Your task to perform on an android device: star an email in the gmail app Image 0: 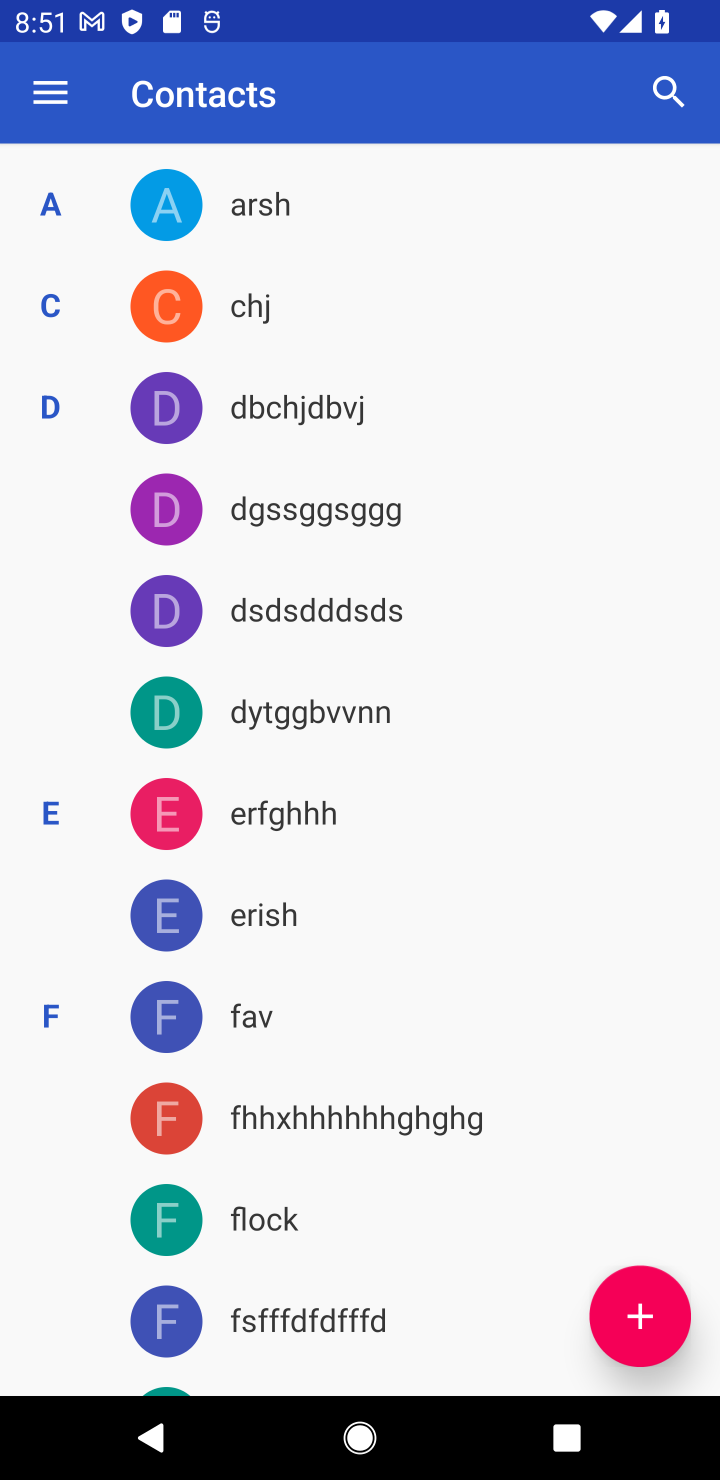
Step 0: press home button
Your task to perform on an android device: star an email in the gmail app Image 1: 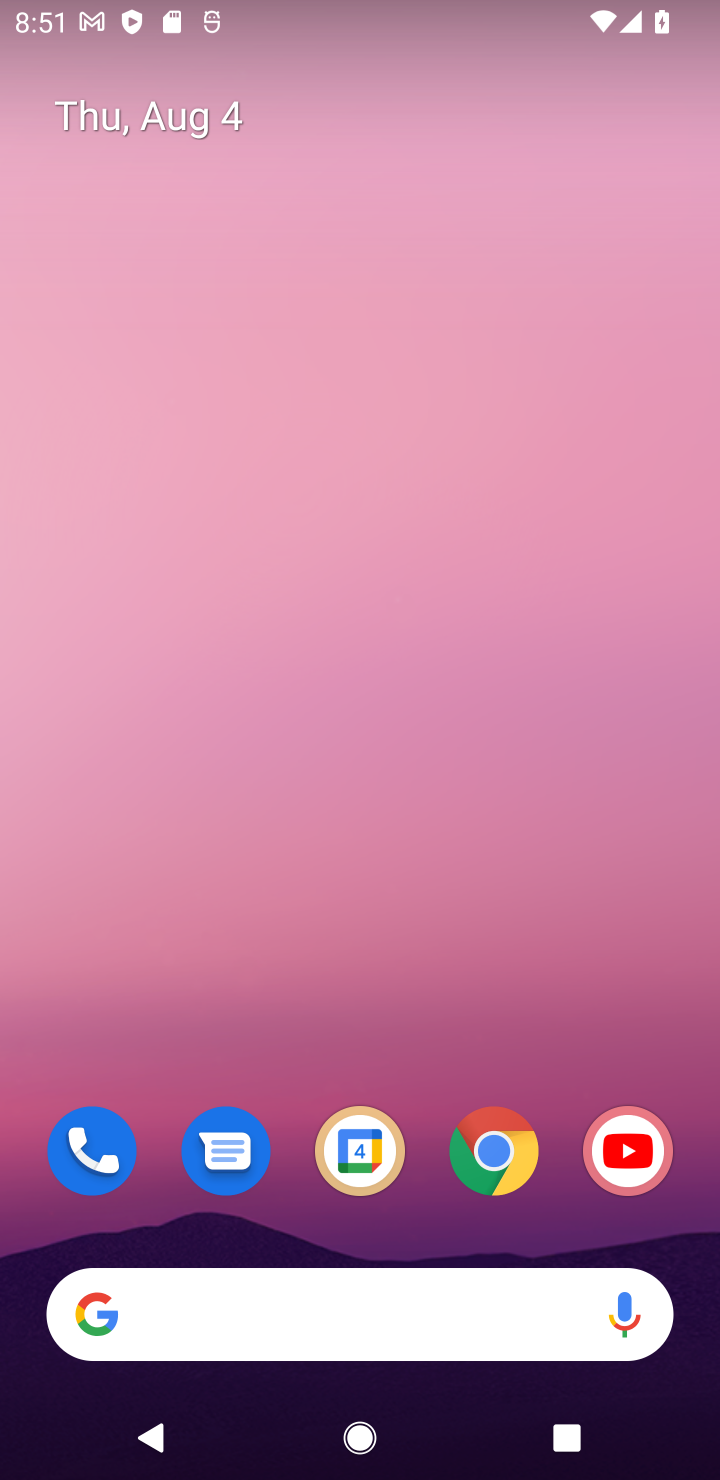
Step 1: drag from (499, 1044) to (379, 29)
Your task to perform on an android device: star an email in the gmail app Image 2: 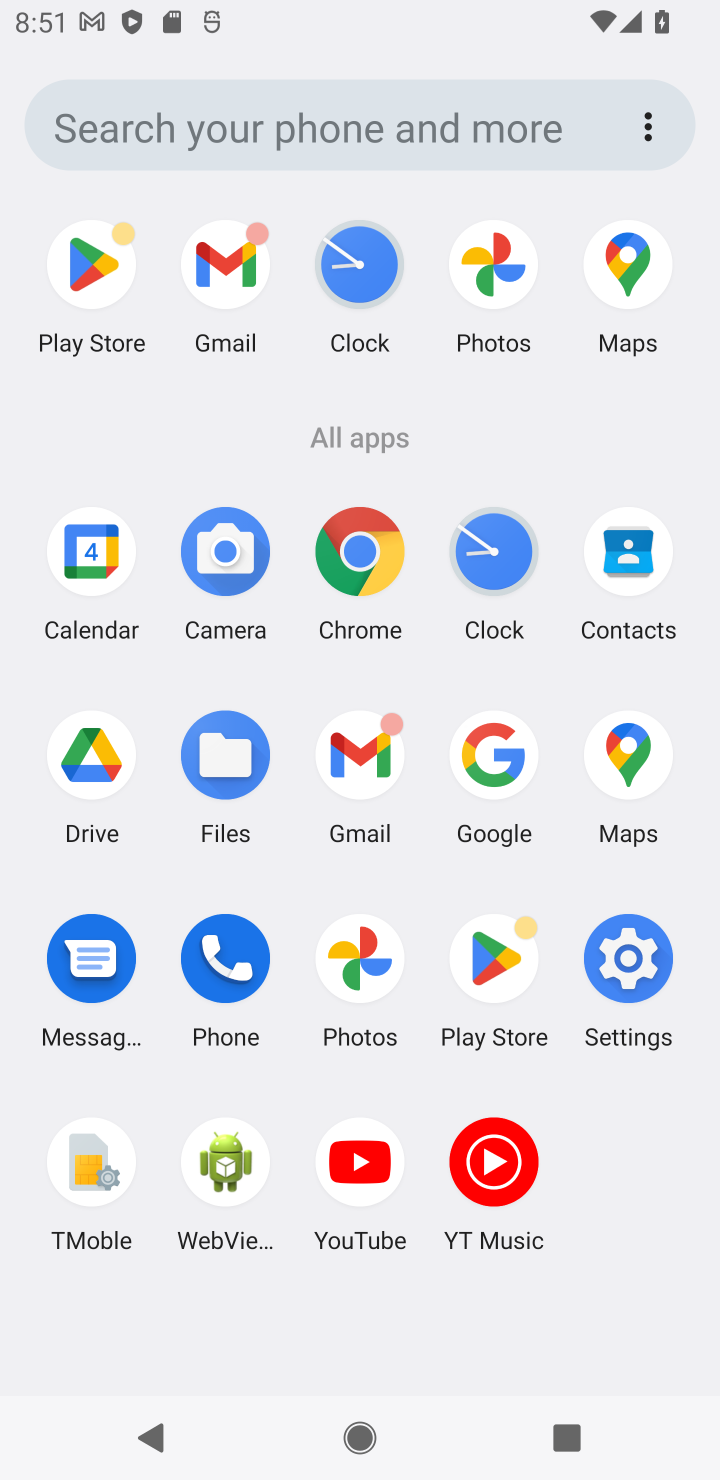
Step 2: click (349, 754)
Your task to perform on an android device: star an email in the gmail app Image 3: 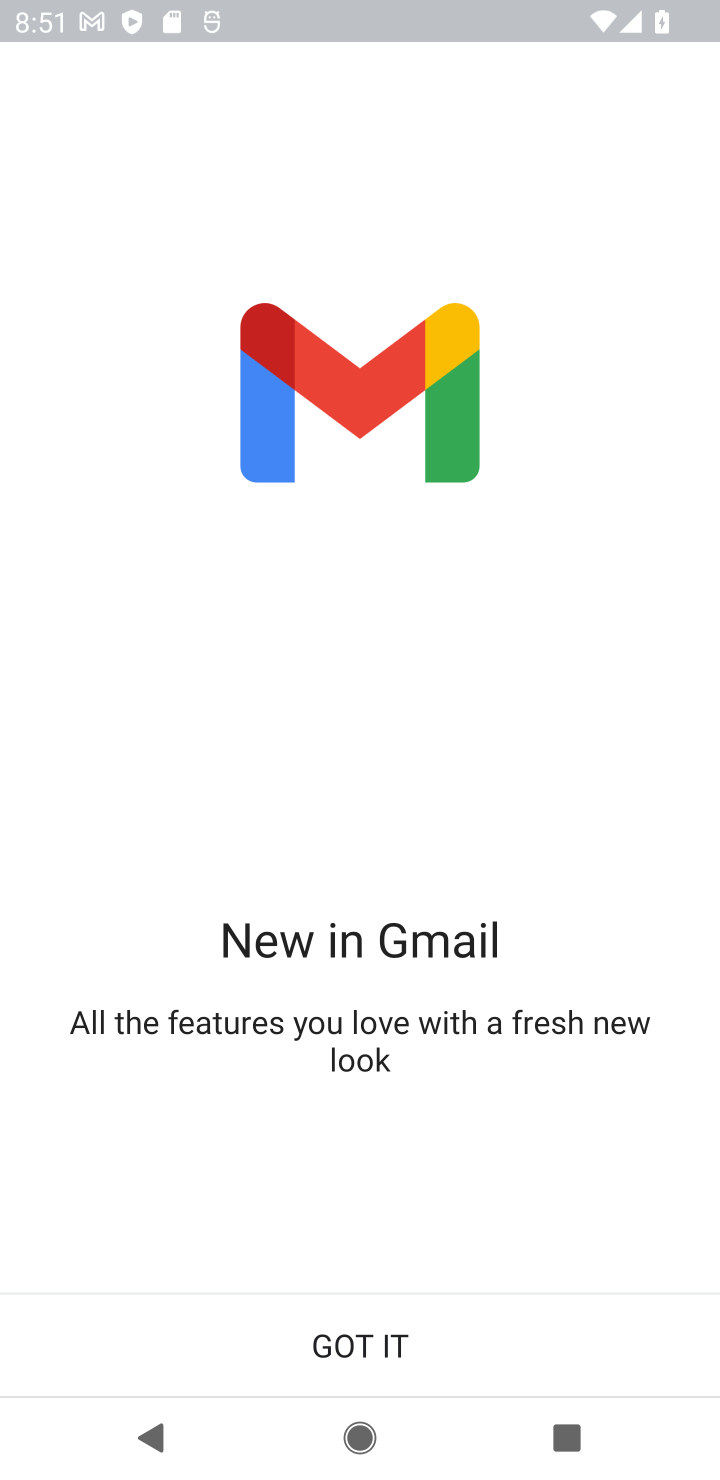
Step 3: click (379, 1321)
Your task to perform on an android device: star an email in the gmail app Image 4: 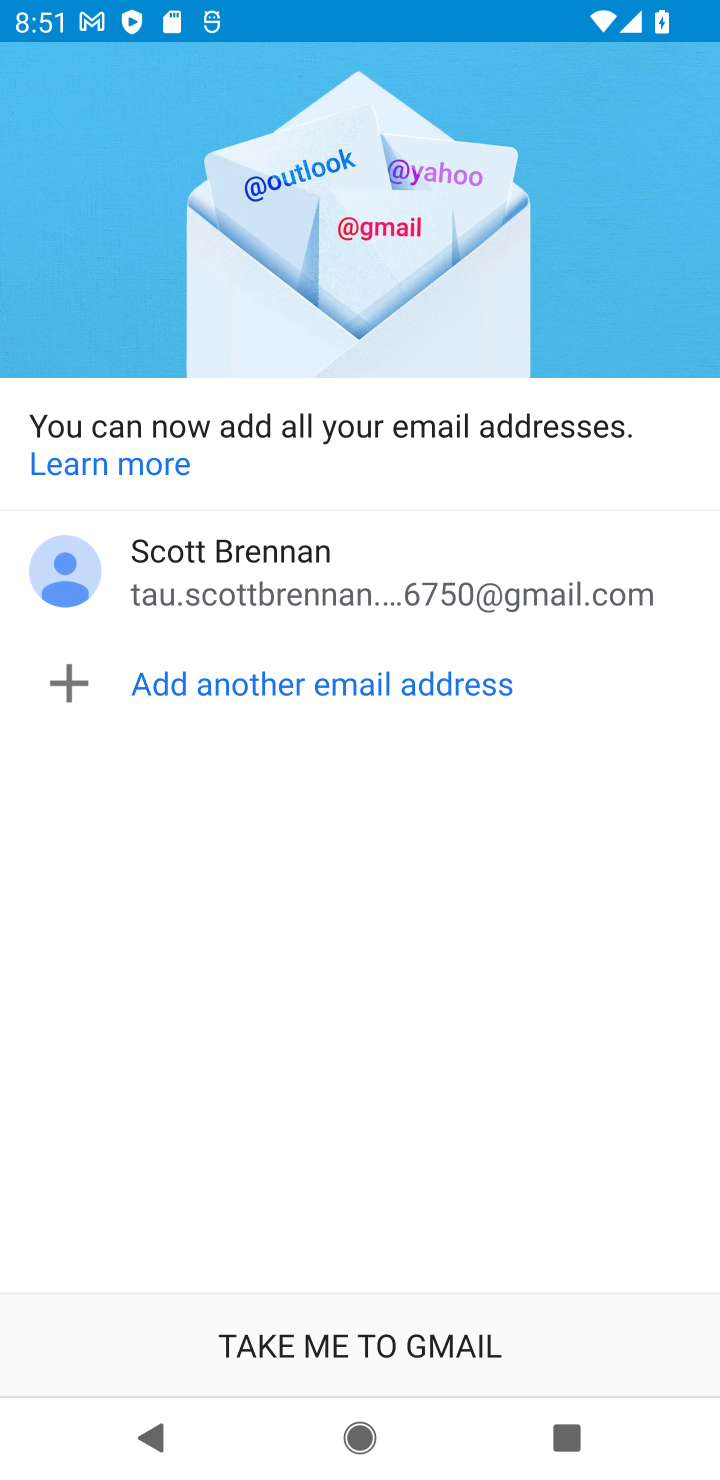
Step 4: click (417, 1306)
Your task to perform on an android device: star an email in the gmail app Image 5: 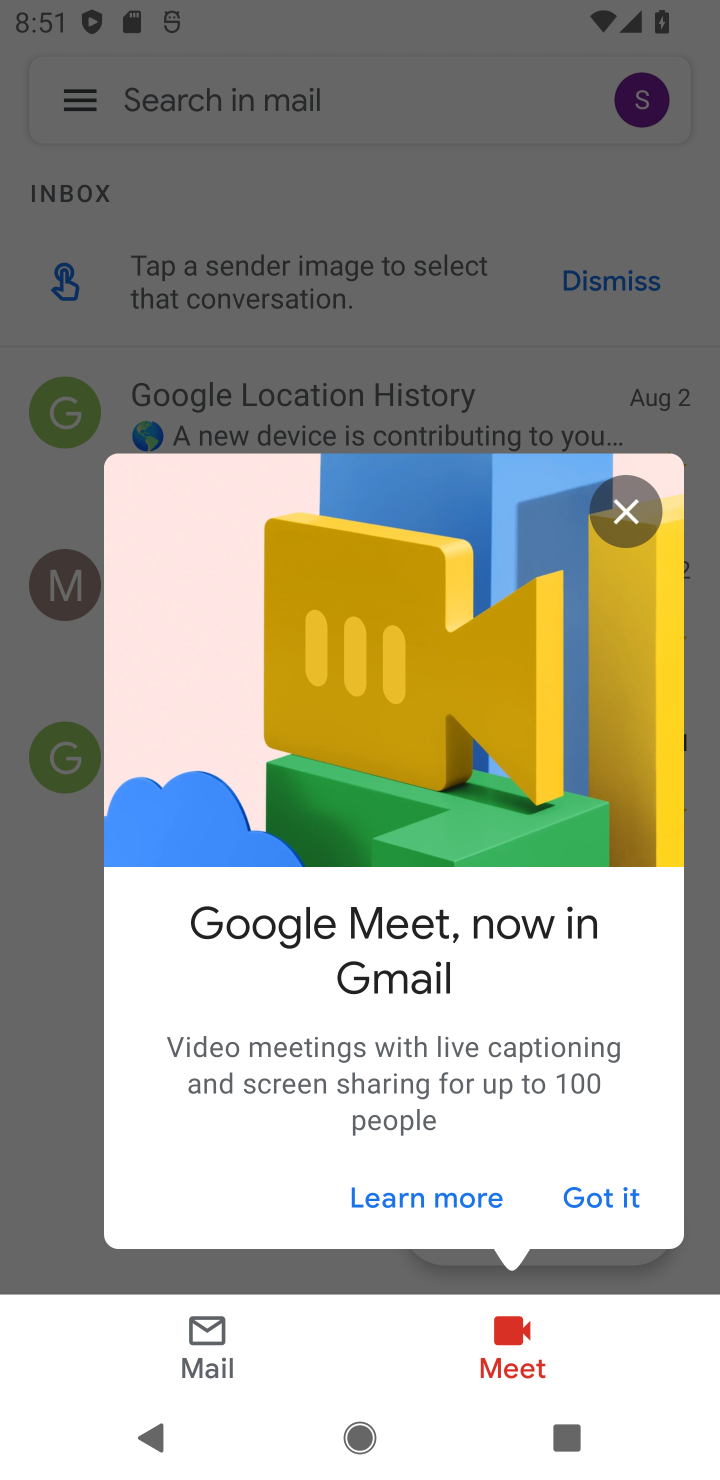
Step 5: click (622, 508)
Your task to perform on an android device: star an email in the gmail app Image 6: 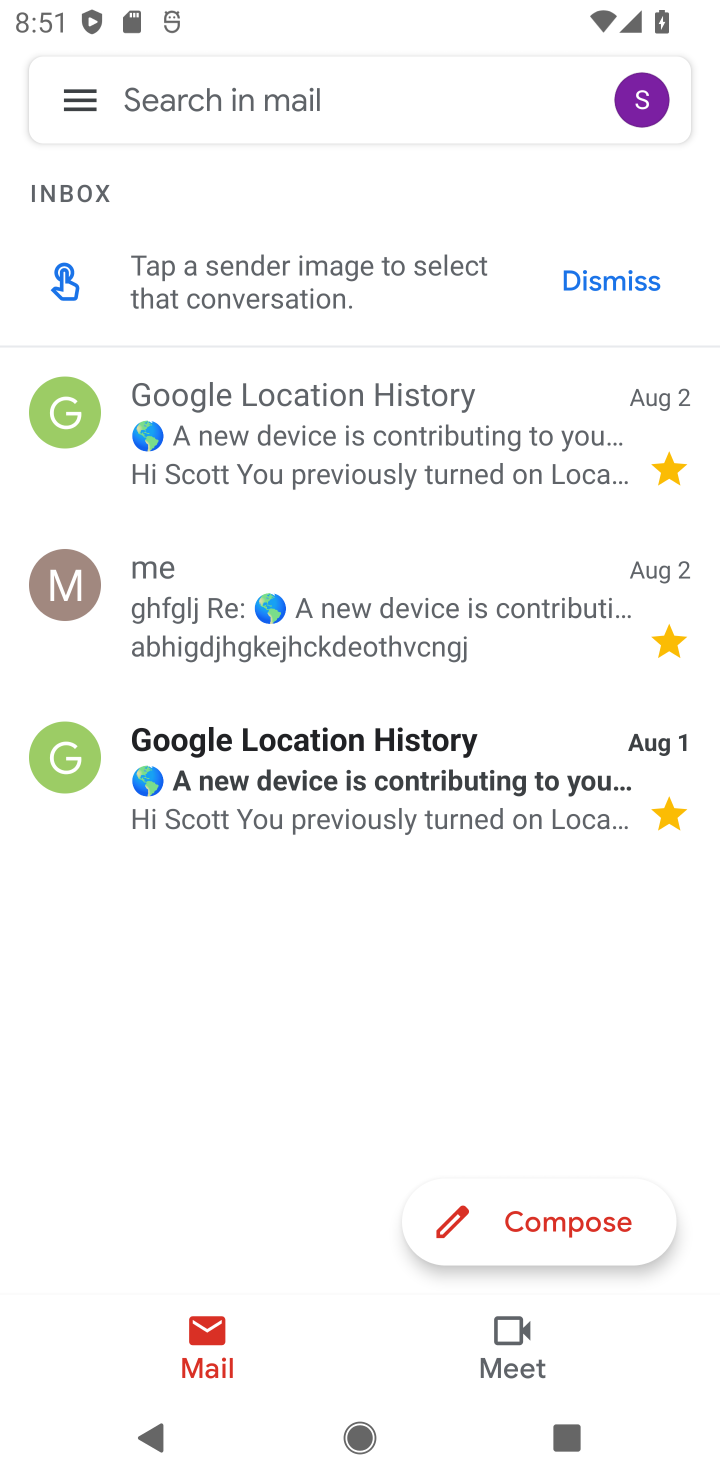
Step 6: click (97, 127)
Your task to perform on an android device: star an email in the gmail app Image 7: 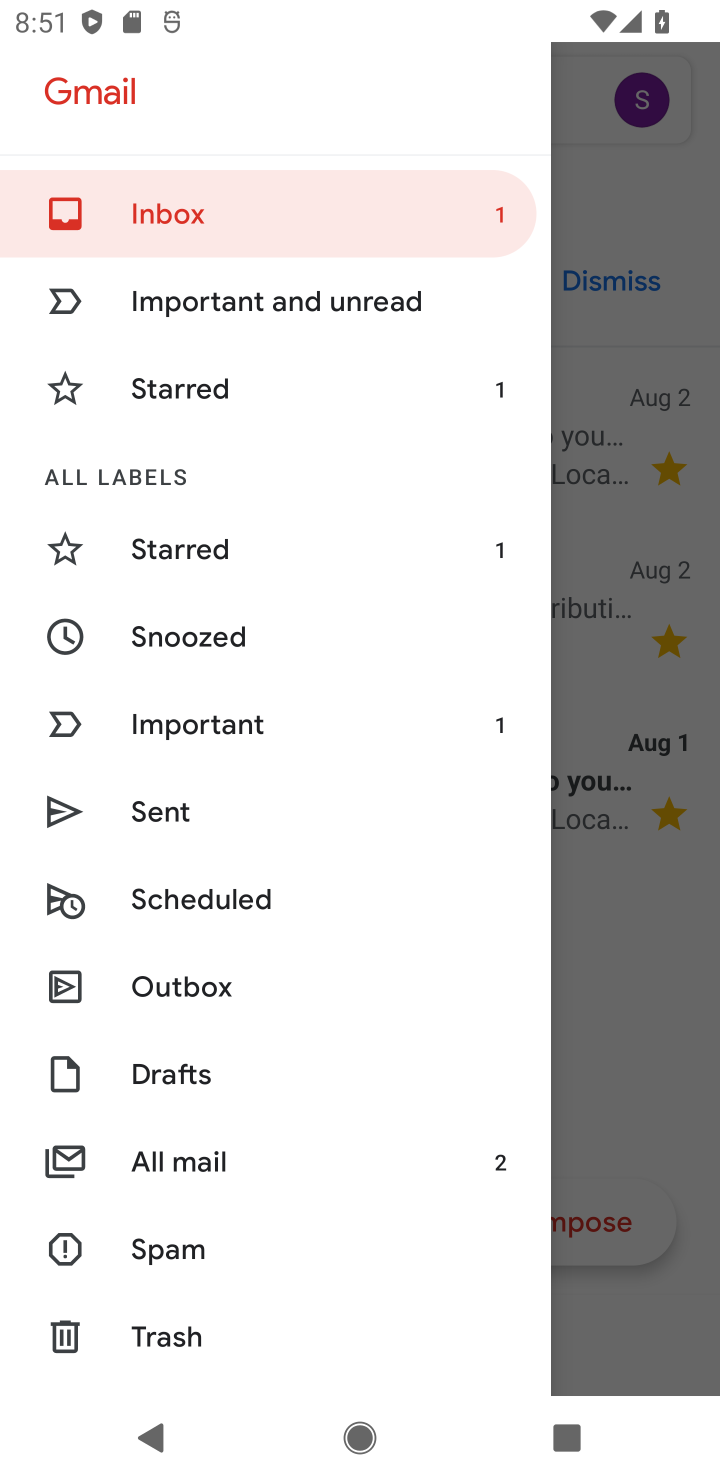
Step 7: click (269, 1170)
Your task to perform on an android device: star an email in the gmail app Image 8: 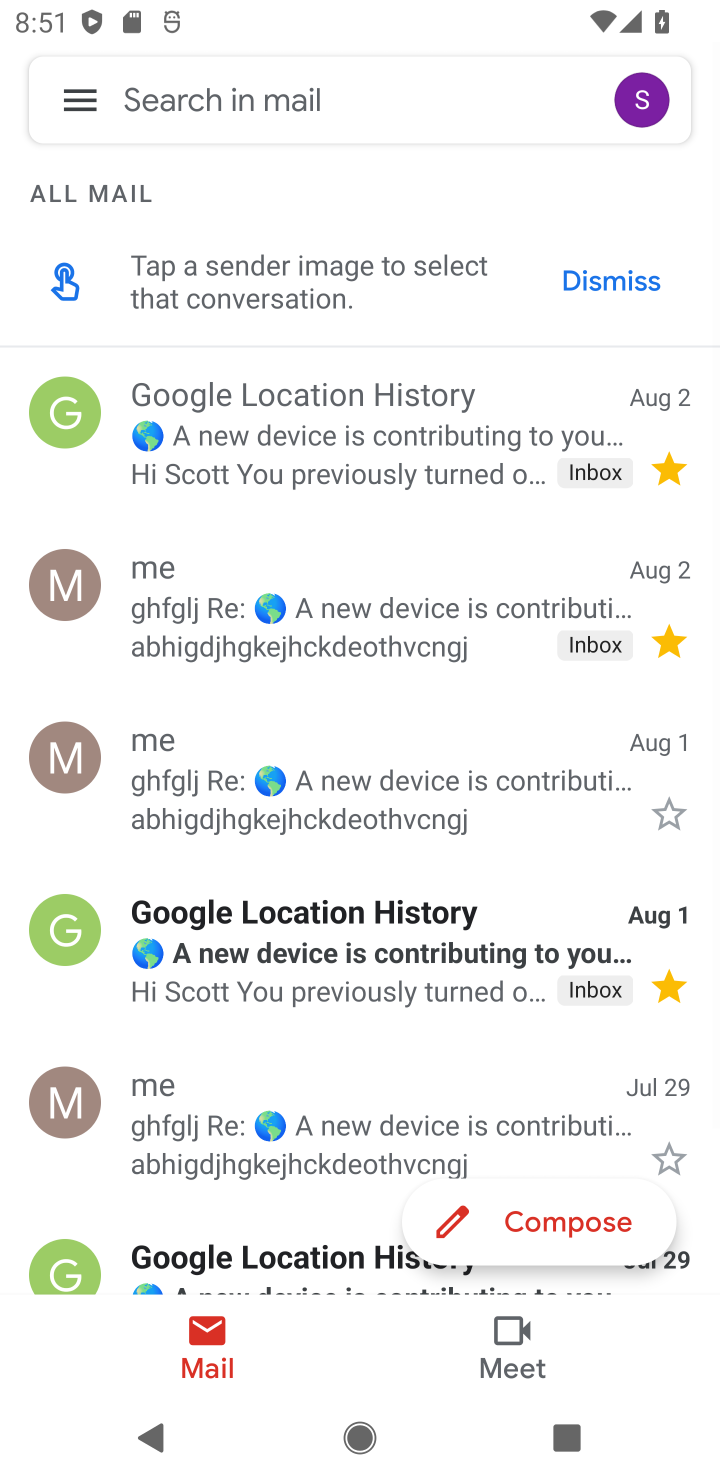
Step 8: click (668, 814)
Your task to perform on an android device: star an email in the gmail app Image 9: 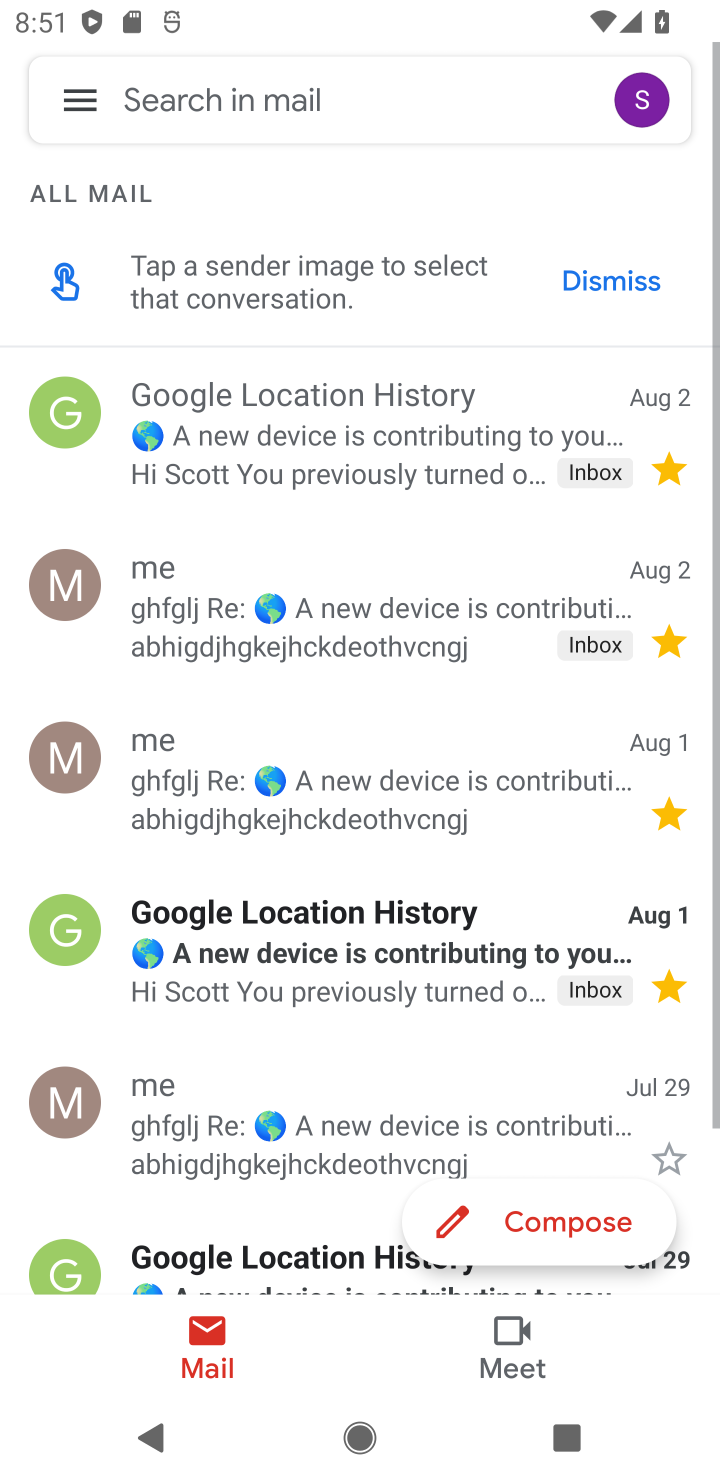
Step 9: task complete